Your task to perform on an android device: open the mobile data screen to see how much data has been used Image 0: 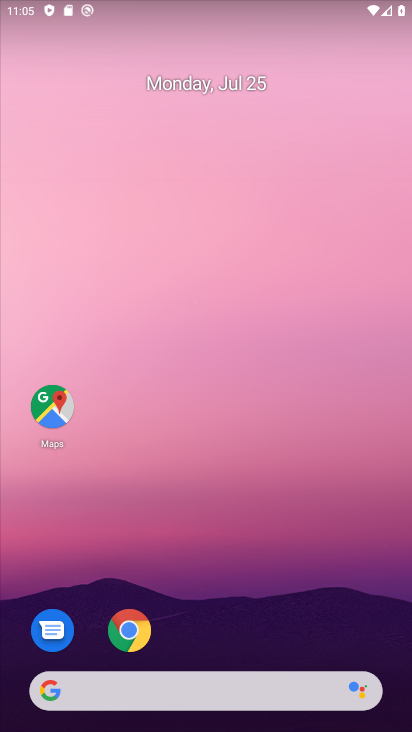
Step 0: click (166, 256)
Your task to perform on an android device: open the mobile data screen to see how much data has been used Image 1: 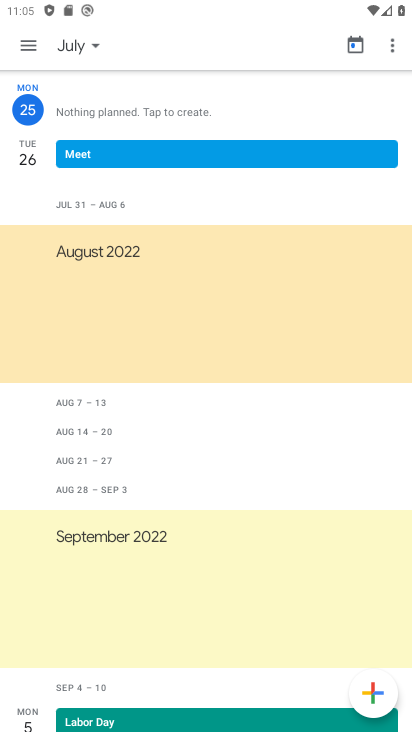
Step 1: drag from (182, 485) to (153, 213)
Your task to perform on an android device: open the mobile data screen to see how much data has been used Image 2: 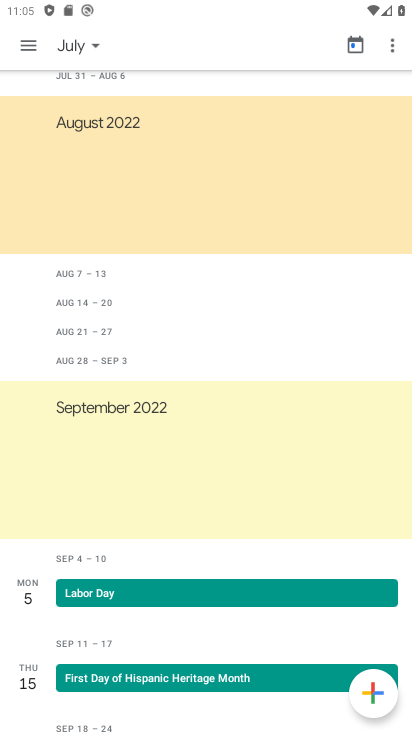
Step 2: press back button
Your task to perform on an android device: open the mobile data screen to see how much data has been used Image 3: 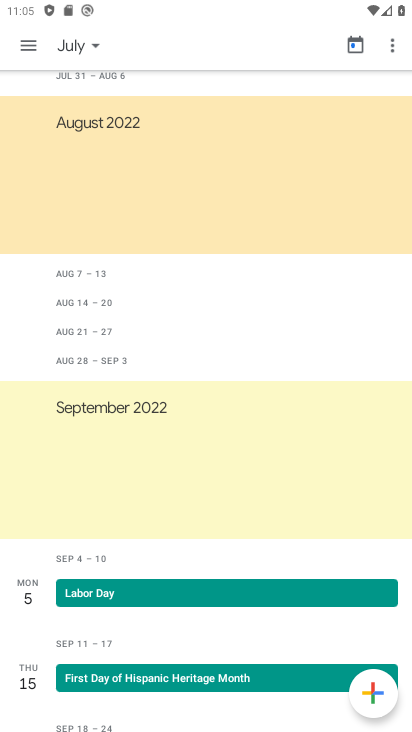
Step 3: press back button
Your task to perform on an android device: open the mobile data screen to see how much data has been used Image 4: 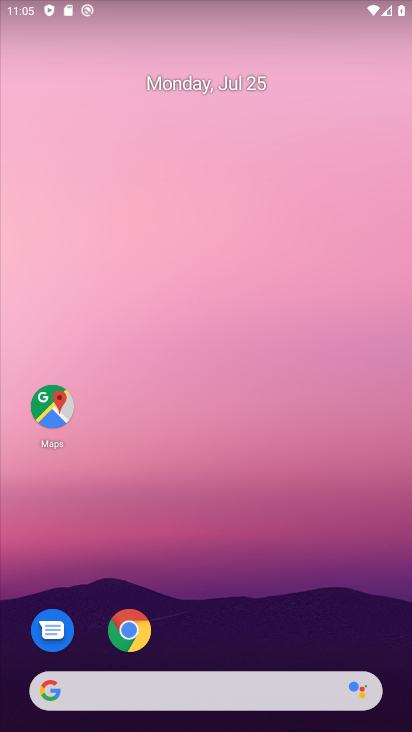
Step 4: drag from (309, 697) to (239, 192)
Your task to perform on an android device: open the mobile data screen to see how much data has been used Image 5: 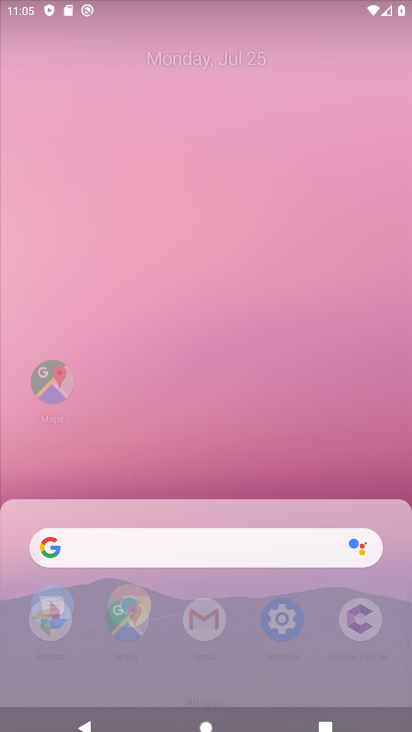
Step 5: drag from (249, 458) to (200, 12)
Your task to perform on an android device: open the mobile data screen to see how much data has been used Image 6: 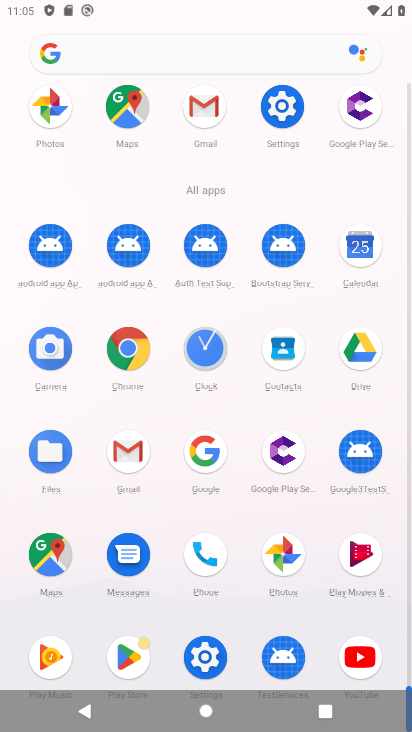
Step 6: drag from (203, 401) to (177, 51)
Your task to perform on an android device: open the mobile data screen to see how much data has been used Image 7: 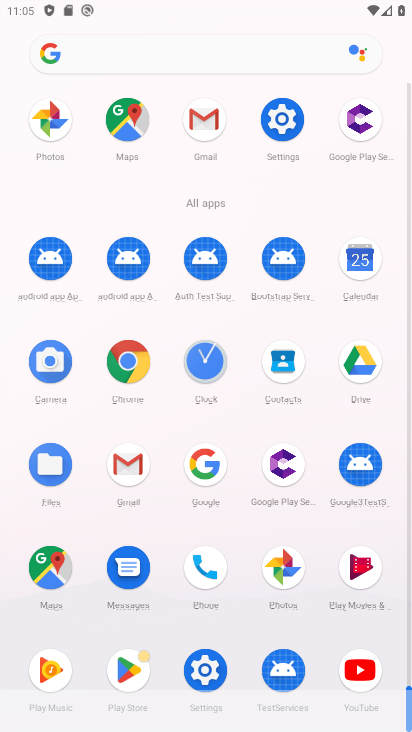
Step 7: click (279, 118)
Your task to perform on an android device: open the mobile data screen to see how much data has been used Image 8: 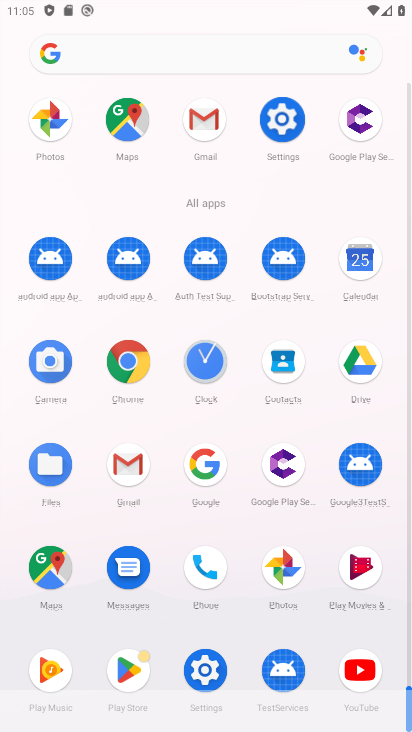
Step 8: click (279, 119)
Your task to perform on an android device: open the mobile data screen to see how much data has been used Image 9: 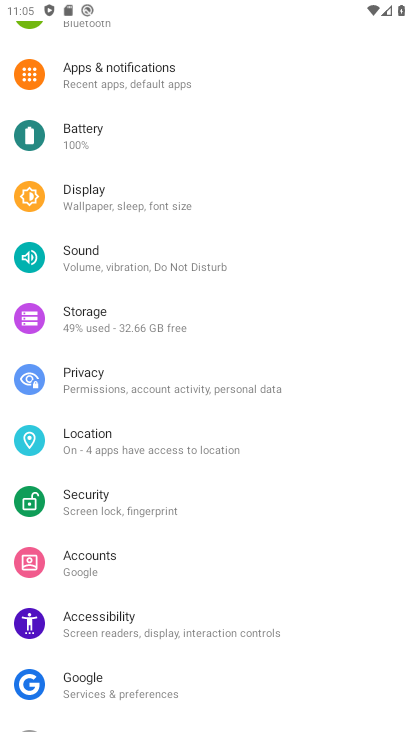
Step 9: drag from (116, 115) to (132, 454)
Your task to perform on an android device: open the mobile data screen to see how much data has been used Image 10: 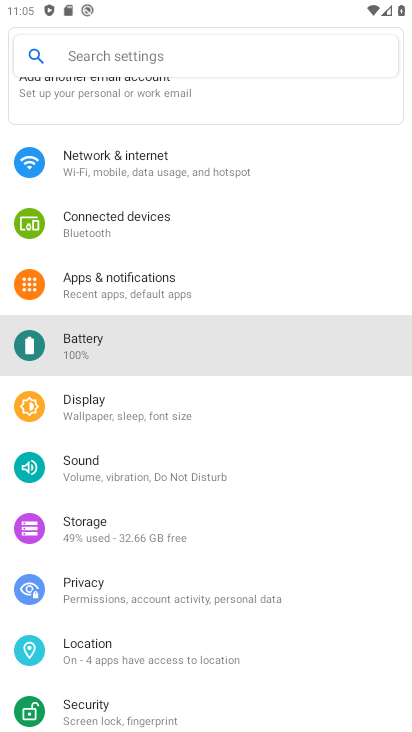
Step 10: drag from (104, 207) to (152, 637)
Your task to perform on an android device: open the mobile data screen to see how much data has been used Image 11: 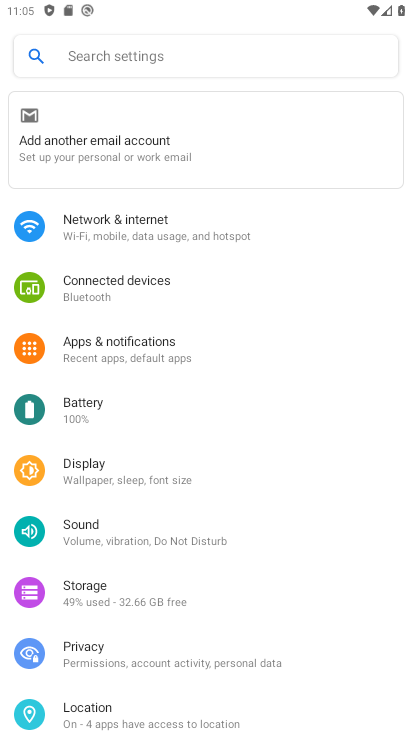
Step 11: click (143, 224)
Your task to perform on an android device: open the mobile data screen to see how much data has been used Image 12: 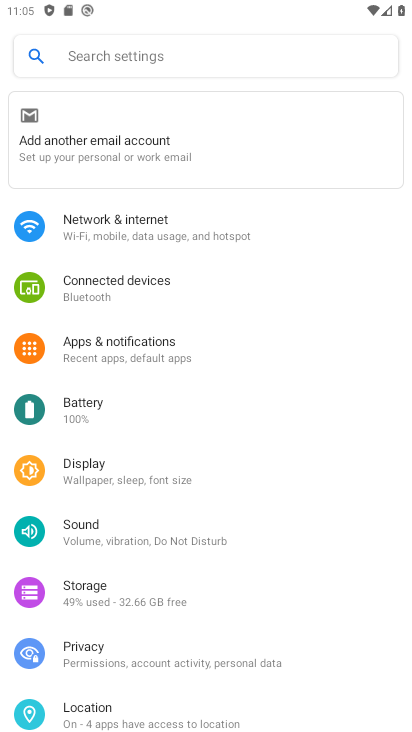
Step 12: click (176, 232)
Your task to perform on an android device: open the mobile data screen to see how much data has been used Image 13: 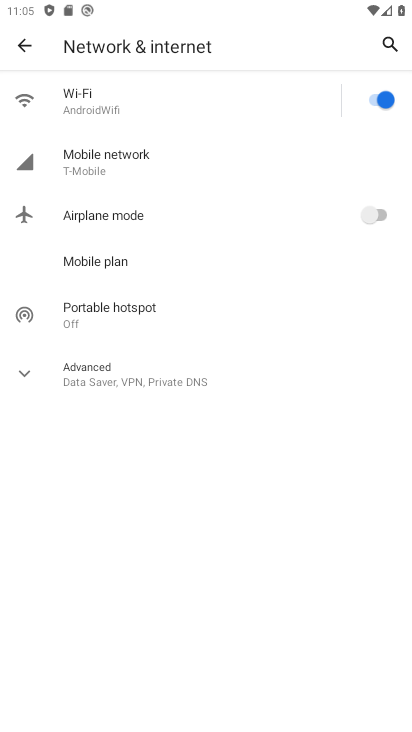
Step 13: click (95, 164)
Your task to perform on an android device: open the mobile data screen to see how much data has been used Image 14: 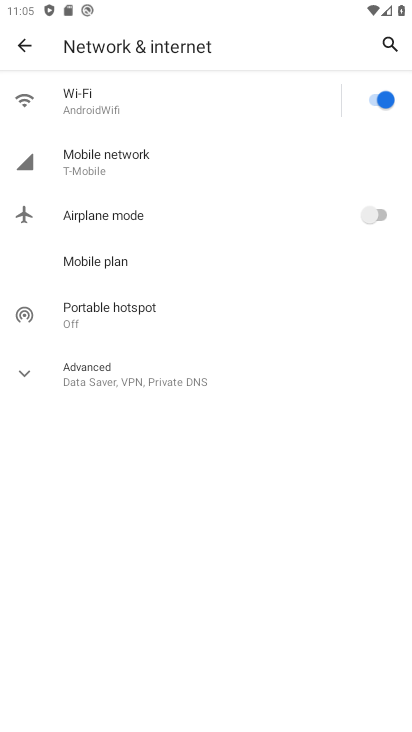
Step 14: click (89, 166)
Your task to perform on an android device: open the mobile data screen to see how much data has been used Image 15: 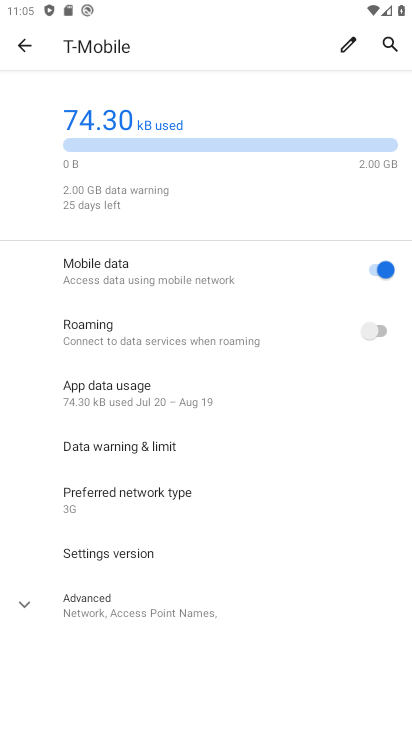
Step 15: task complete